Your task to perform on an android device: What is the news today? Image 0: 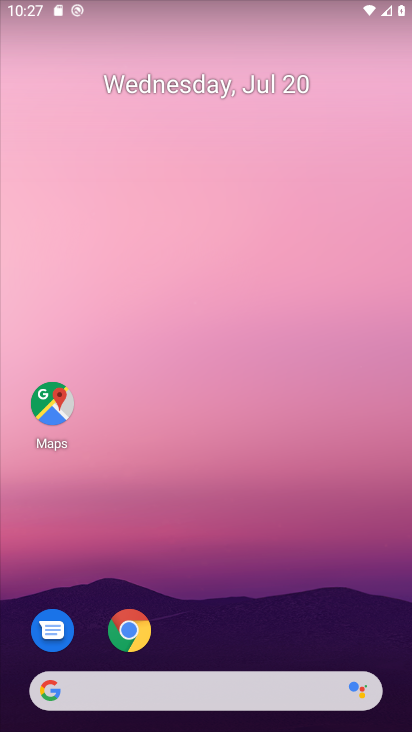
Step 0: drag from (165, 599) to (152, 94)
Your task to perform on an android device: What is the news today? Image 1: 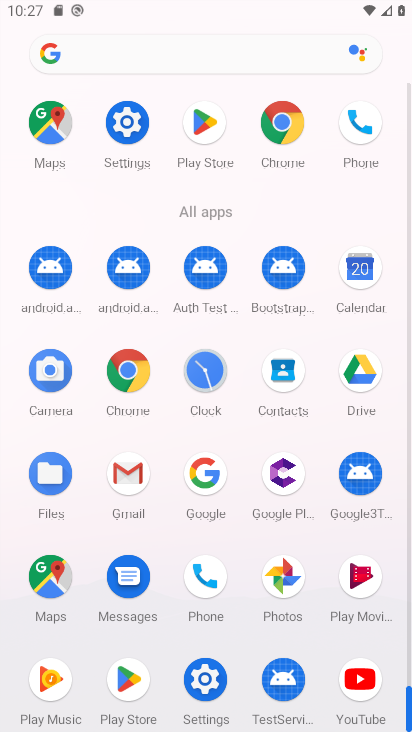
Step 1: click (275, 116)
Your task to perform on an android device: What is the news today? Image 2: 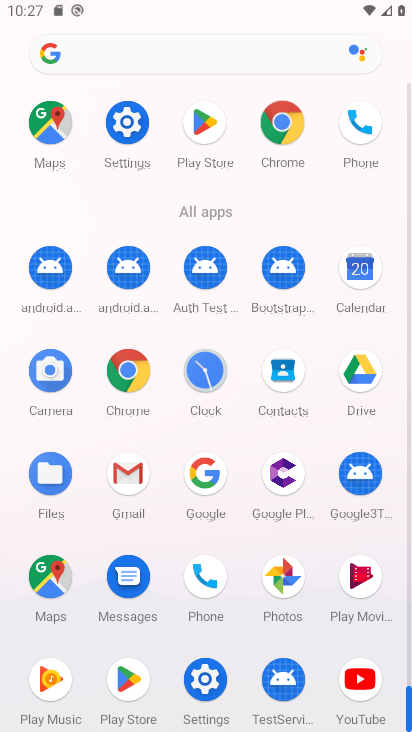
Step 2: click (274, 111)
Your task to perform on an android device: What is the news today? Image 3: 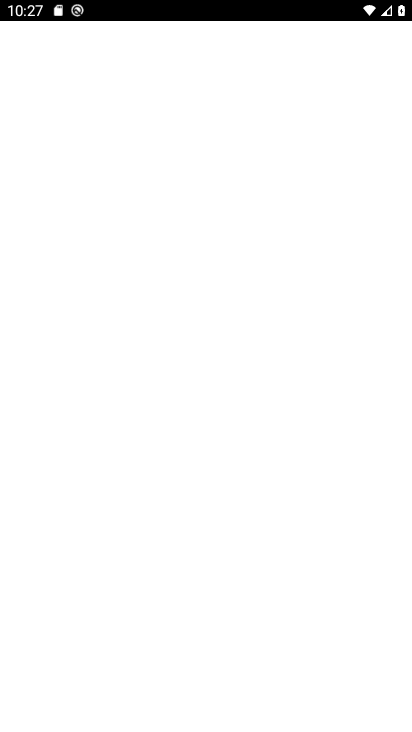
Step 3: click (275, 111)
Your task to perform on an android device: What is the news today? Image 4: 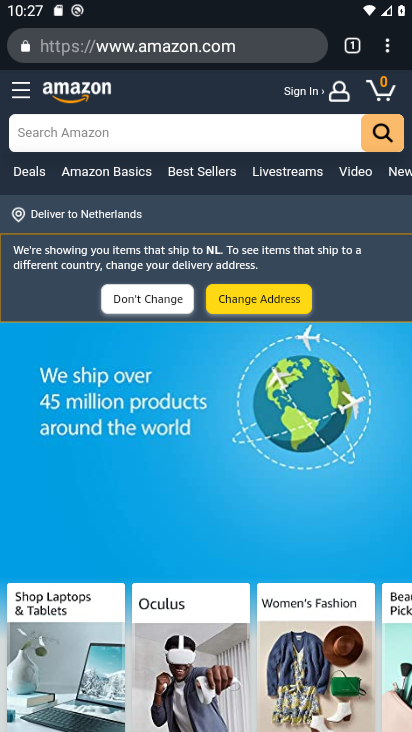
Step 4: drag from (387, 44) to (208, 88)
Your task to perform on an android device: What is the news today? Image 5: 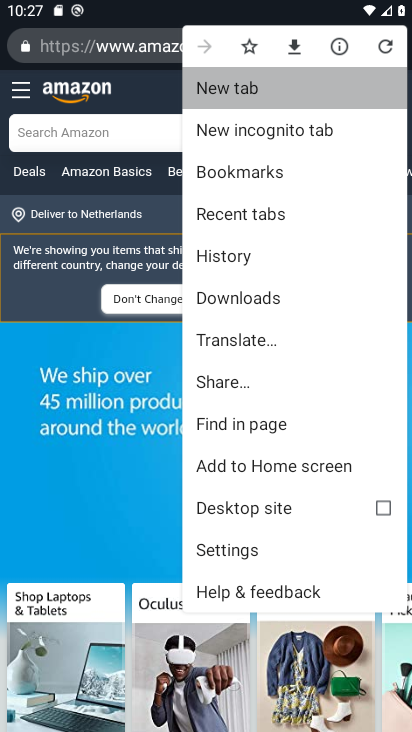
Step 5: click (208, 88)
Your task to perform on an android device: What is the news today? Image 6: 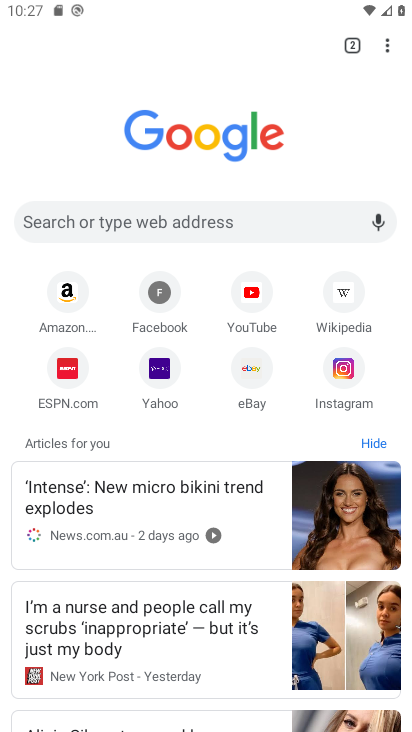
Step 6: task complete